Your task to perform on an android device: Search for vegetarian restaurants on Maps Image 0: 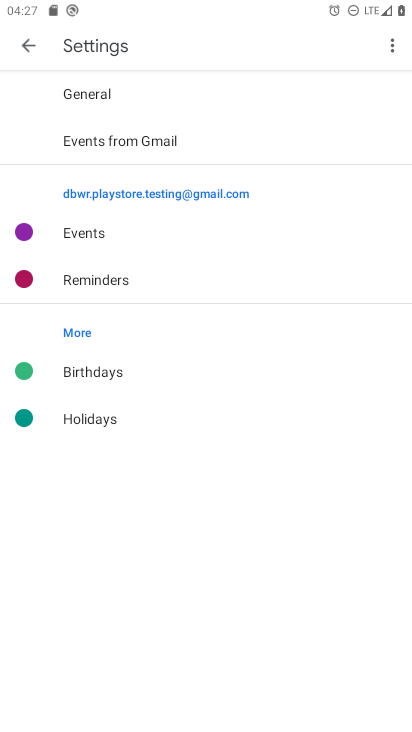
Step 0: press back button
Your task to perform on an android device: Search for vegetarian restaurants on Maps Image 1: 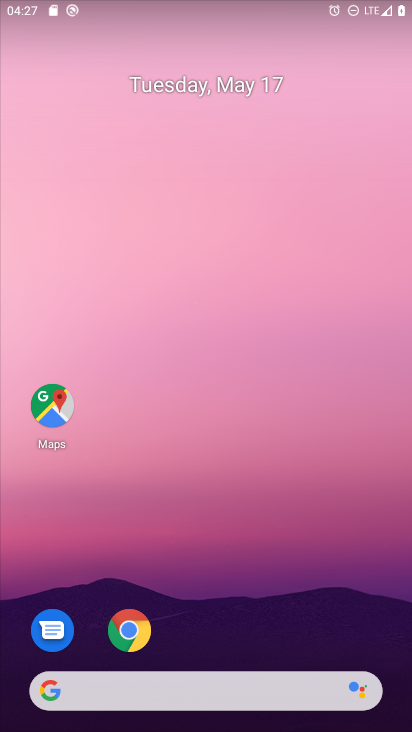
Step 1: click (67, 403)
Your task to perform on an android device: Search for vegetarian restaurants on Maps Image 2: 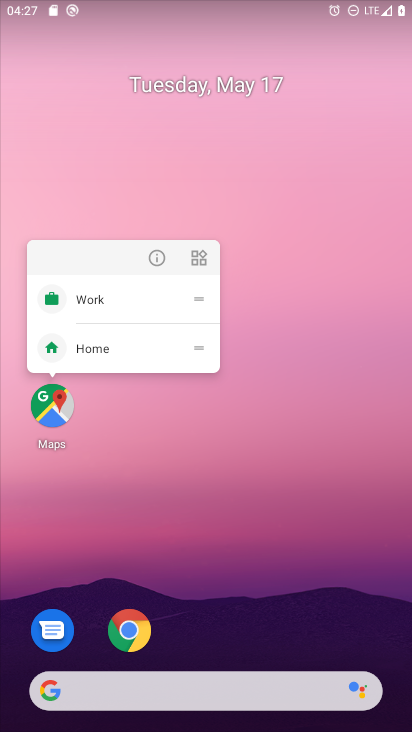
Step 2: click (56, 414)
Your task to perform on an android device: Search for vegetarian restaurants on Maps Image 3: 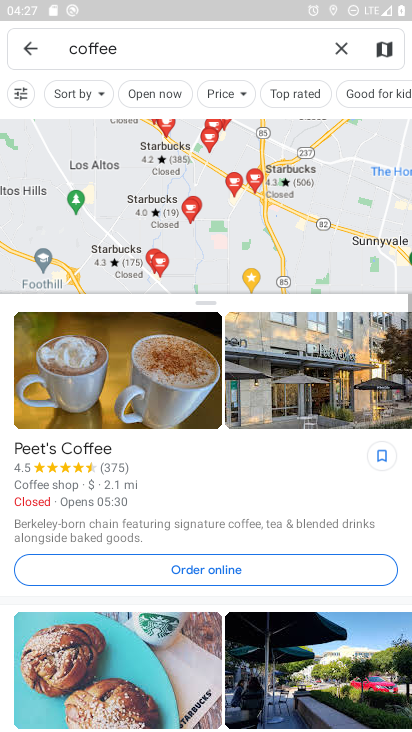
Step 3: click (332, 47)
Your task to perform on an android device: Search for vegetarian restaurants on Maps Image 4: 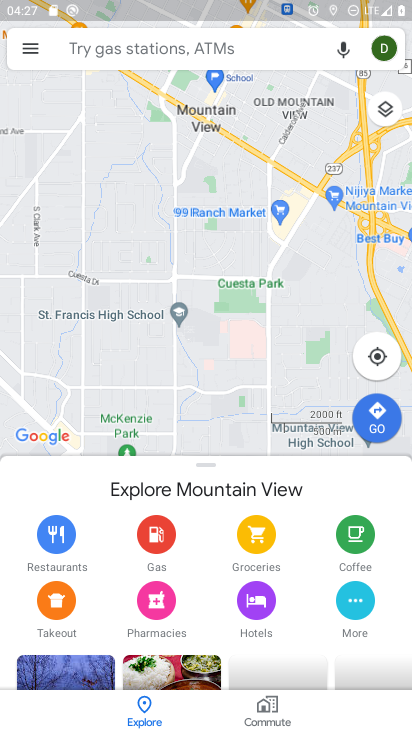
Step 4: click (182, 52)
Your task to perform on an android device: Search for vegetarian restaurants on Maps Image 5: 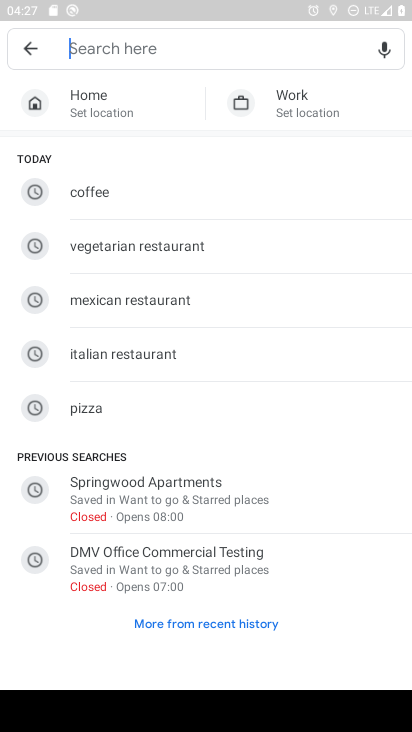
Step 5: click (146, 251)
Your task to perform on an android device: Search for vegetarian restaurants on Maps Image 6: 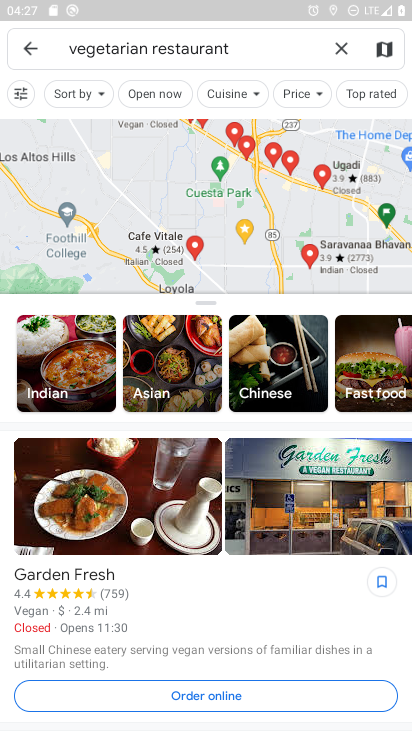
Step 6: task complete